Your task to perform on an android device: Open settings Image 0: 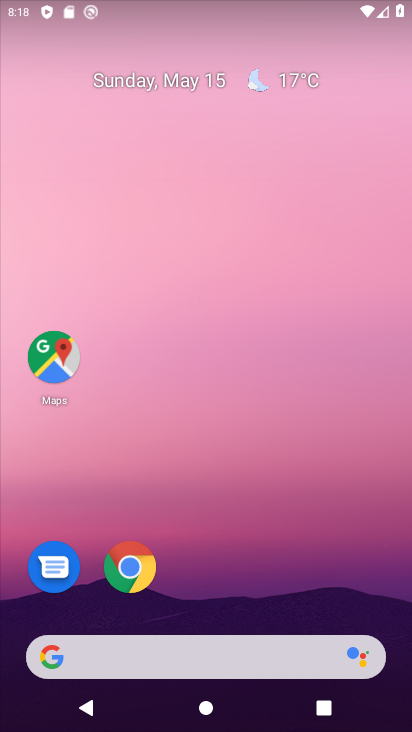
Step 0: drag from (207, 648) to (135, 58)
Your task to perform on an android device: Open settings Image 1: 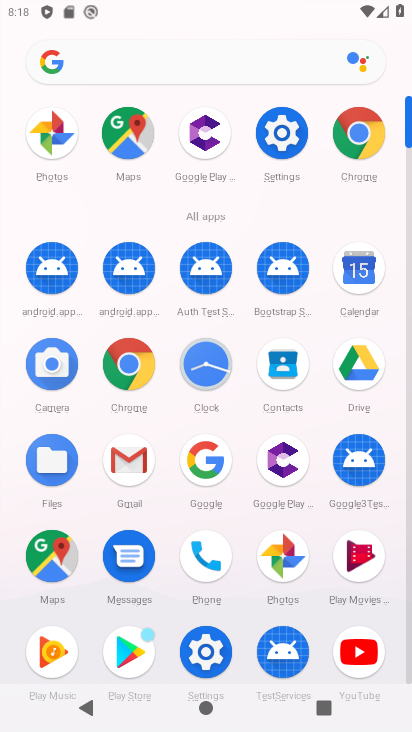
Step 1: click (205, 652)
Your task to perform on an android device: Open settings Image 2: 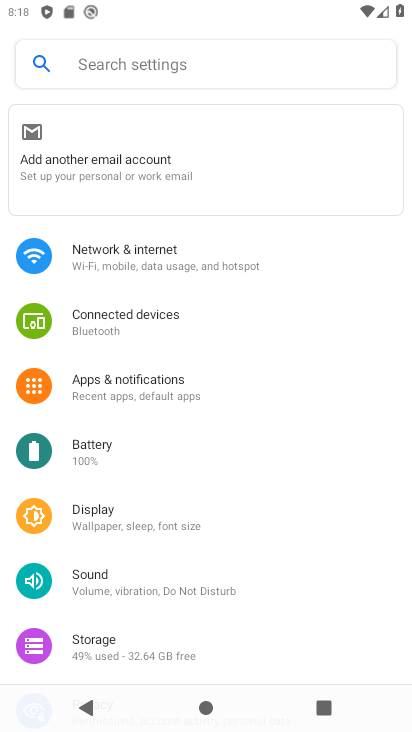
Step 2: task complete